Your task to perform on an android device: check google app version Image 0: 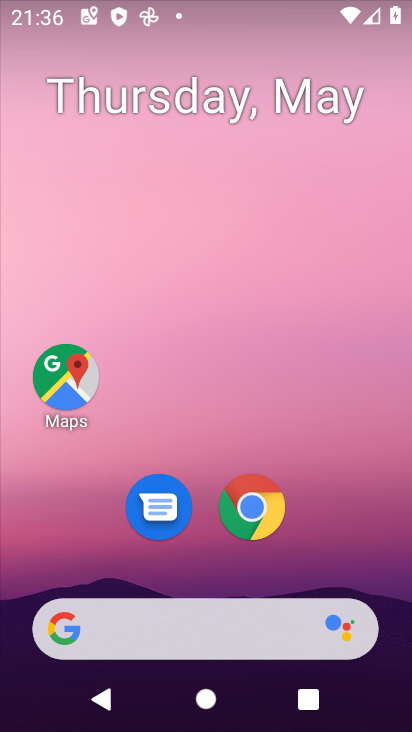
Step 0: press home button
Your task to perform on an android device: check google app version Image 1: 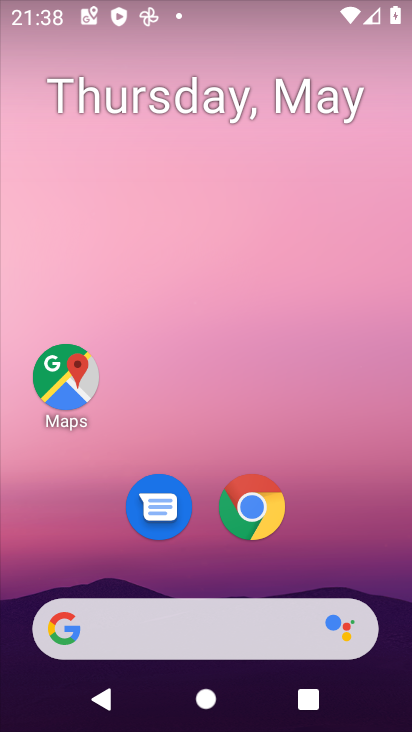
Step 1: drag from (220, 680) to (286, 387)
Your task to perform on an android device: check google app version Image 2: 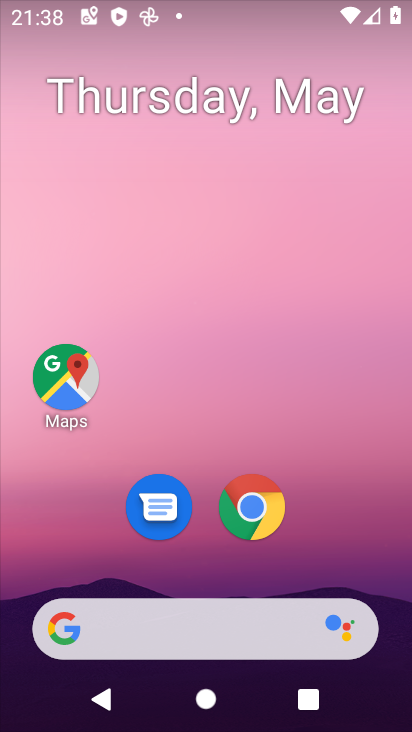
Step 2: drag from (236, 627) to (143, 167)
Your task to perform on an android device: check google app version Image 3: 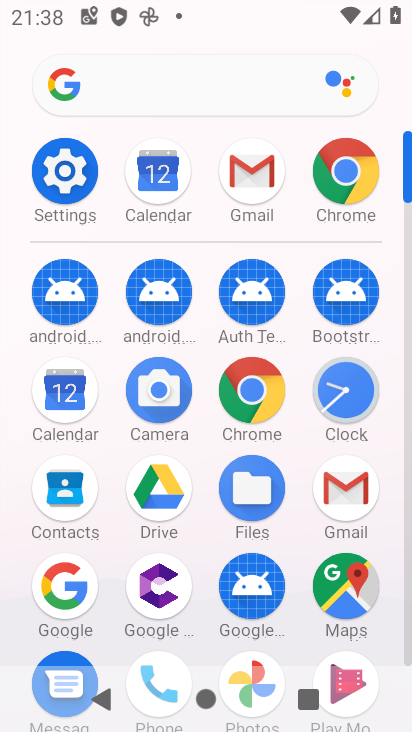
Step 3: click (343, 193)
Your task to perform on an android device: check google app version Image 4: 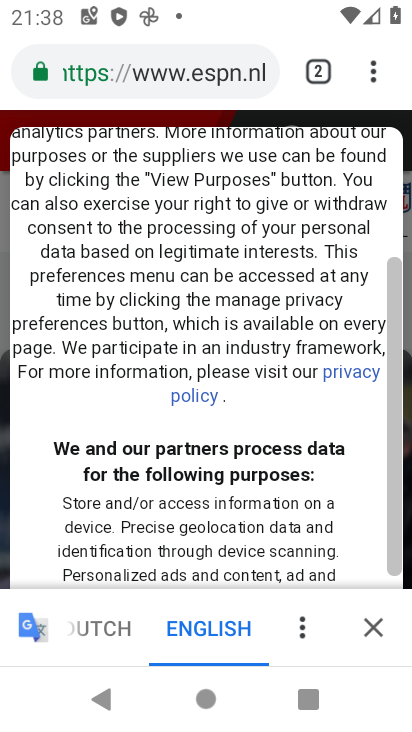
Step 4: click (372, 81)
Your task to perform on an android device: check google app version Image 5: 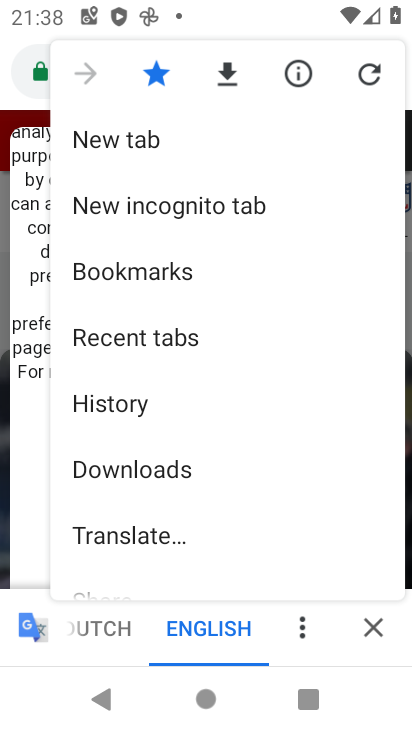
Step 5: drag from (167, 485) to (174, 187)
Your task to perform on an android device: check google app version Image 6: 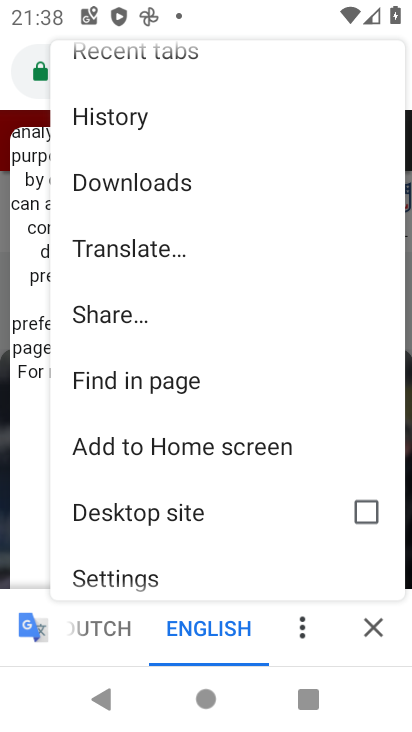
Step 6: click (162, 562)
Your task to perform on an android device: check google app version Image 7: 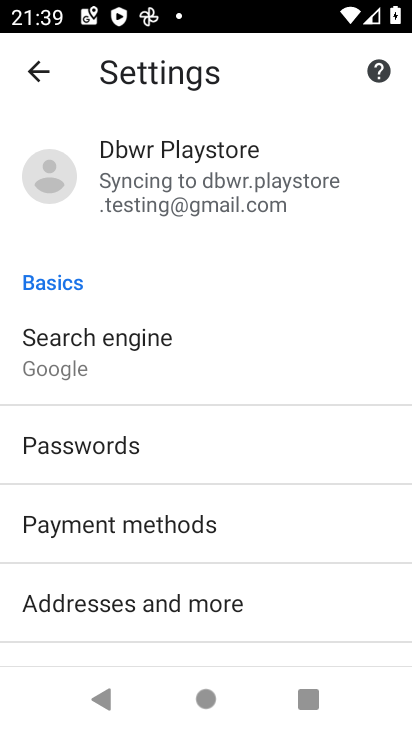
Step 7: drag from (191, 601) to (211, 276)
Your task to perform on an android device: check google app version Image 8: 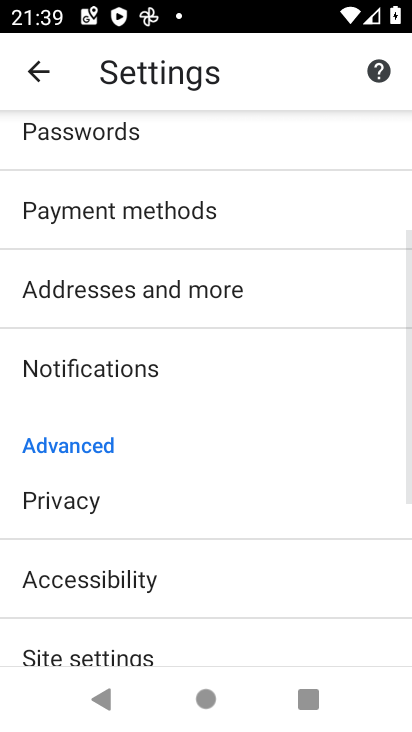
Step 8: drag from (198, 600) to (206, 291)
Your task to perform on an android device: check google app version Image 9: 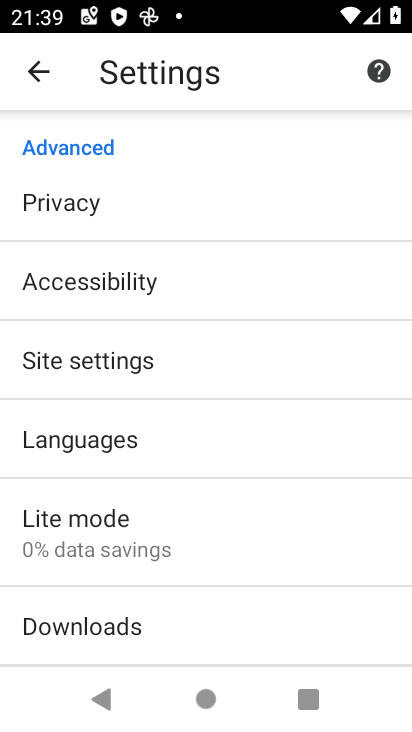
Step 9: drag from (167, 556) to (173, 291)
Your task to perform on an android device: check google app version Image 10: 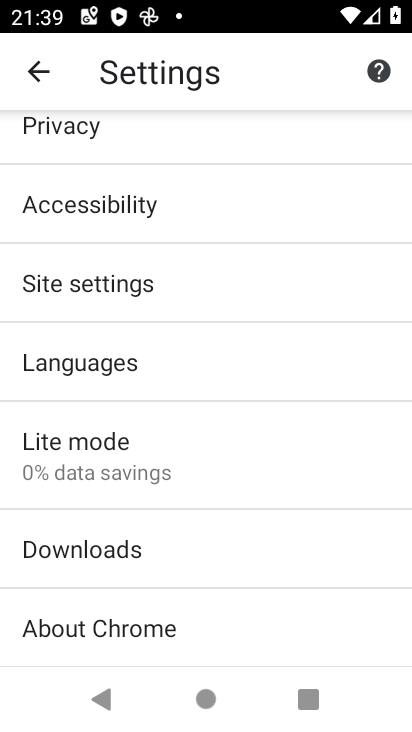
Step 10: click (136, 612)
Your task to perform on an android device: check google app version Image 11: 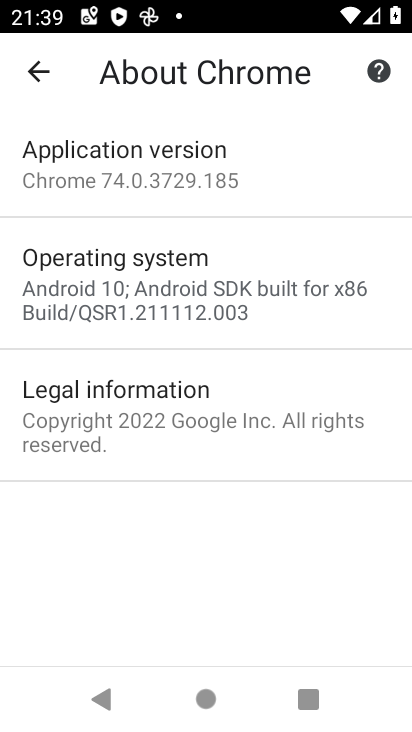
Step 11: click (73, 166)
Your task to perform on an android device: check google app version Image 12: 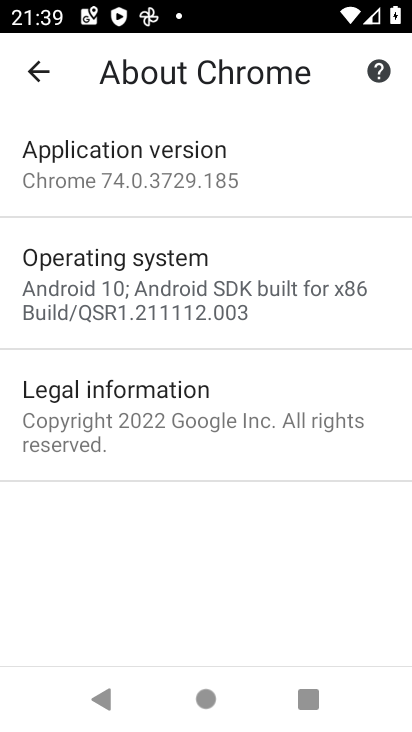
Step 12: task complete